Your task to perform on an android device: open app "Gmail" Image 0: 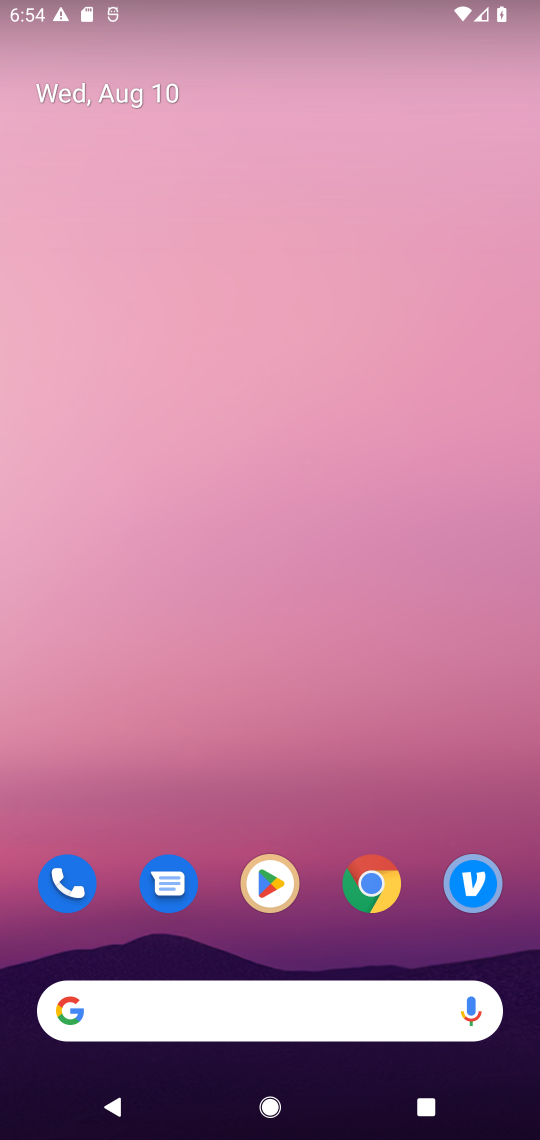
Step 0: drag from (333, 974) to (302, 149)
Your task to perform on an android device: open app "Gmail" Image 1: 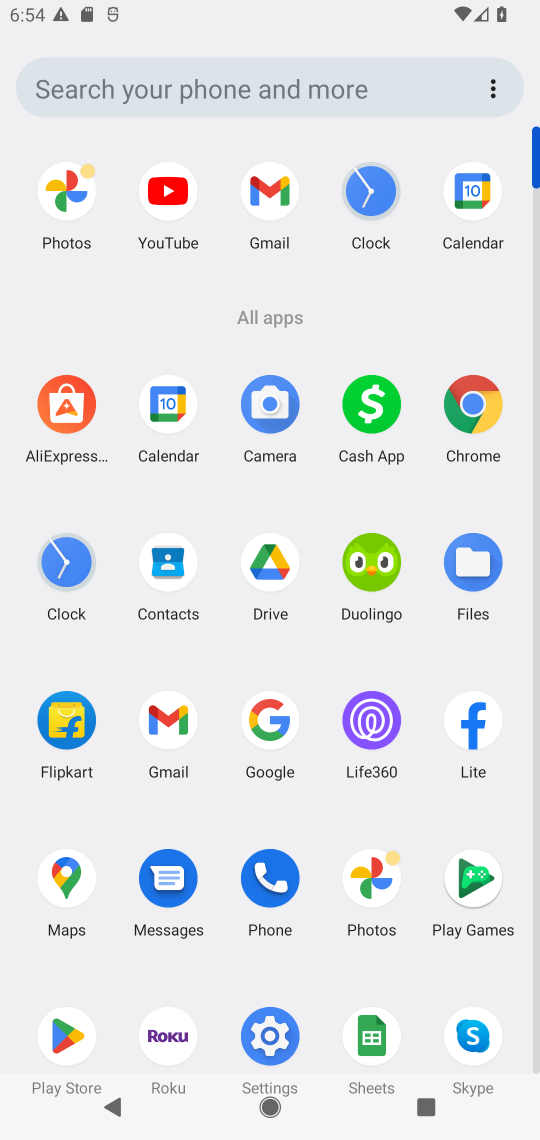
Step 1: click (174, 721)
Your task to perform on an android device: open app "Gmail" Image 2: 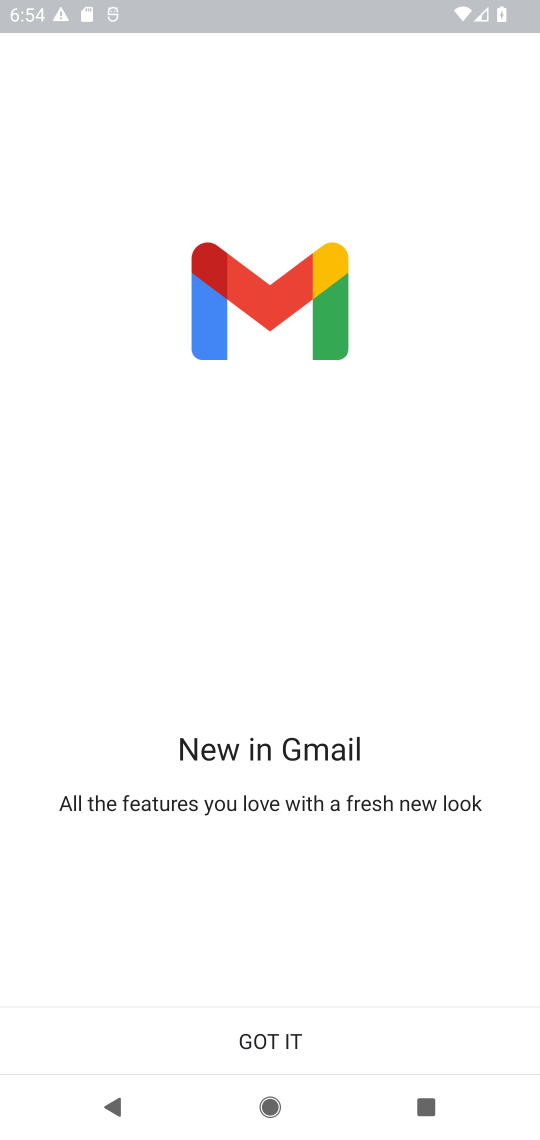
Step 2: click (300, 1040)
Your task to perform on an android device: open app "Gmail" Image 3: 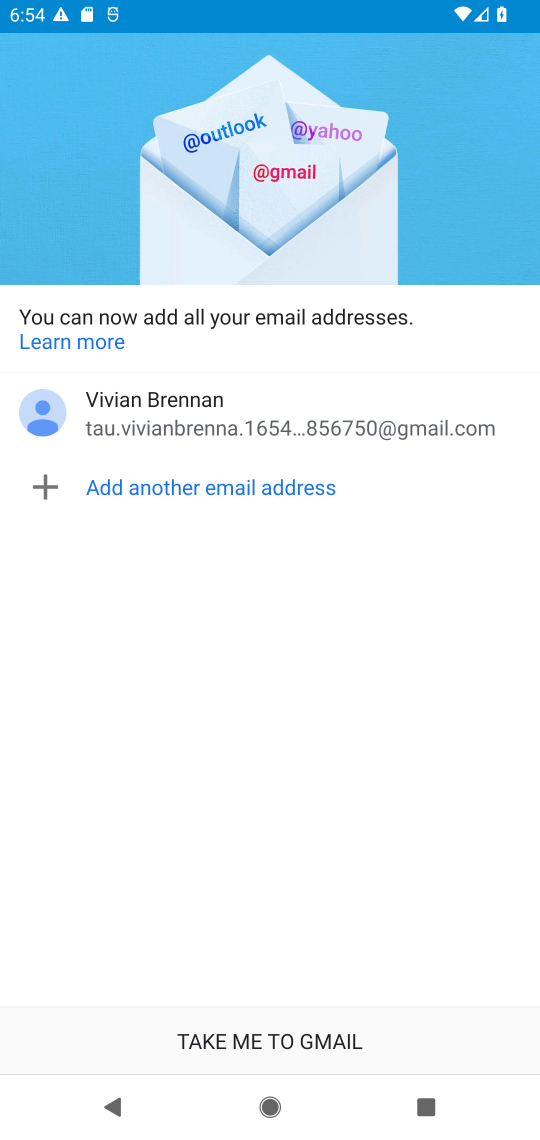
Step 3: click (233, 1039)
Your task to perform on an android device: open app "Gmail" Image 4: 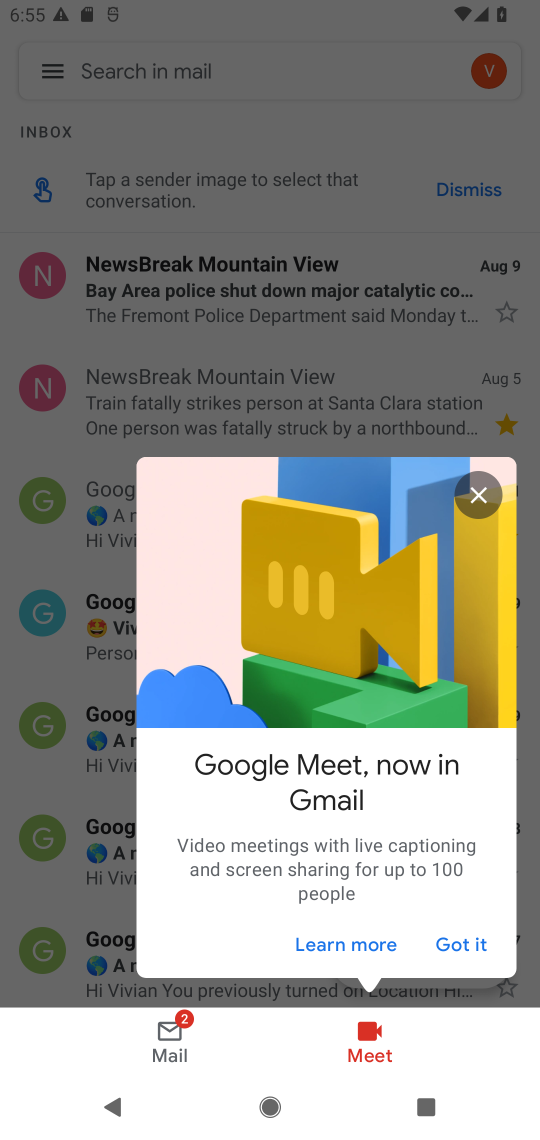
Step 4: task complete